Your task to perform on an android device: turn on sleep mode Image 0: 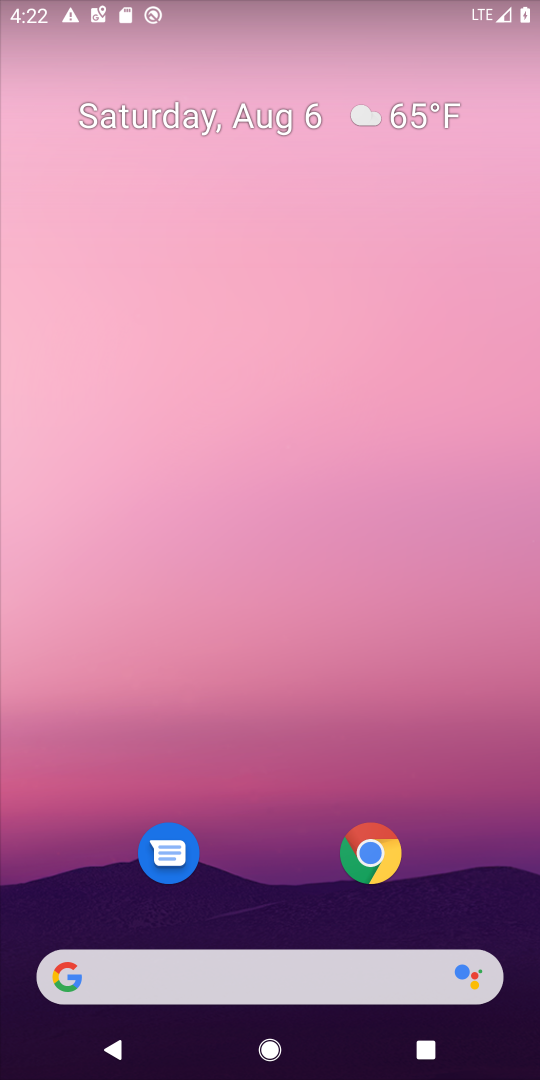
Step 0: drag from (259, 907) to (354, 103)
Your task to perform on an android device: turn on sleep mode Image 1: 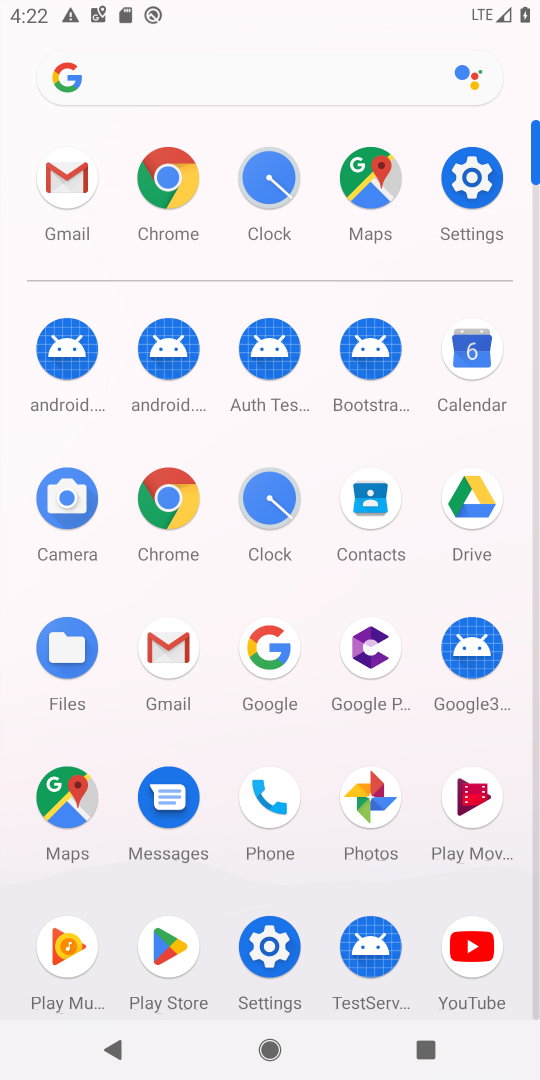
Step 1: click (474, 175)
Your task to perform on an android device: turn on sleep mode Image 2: 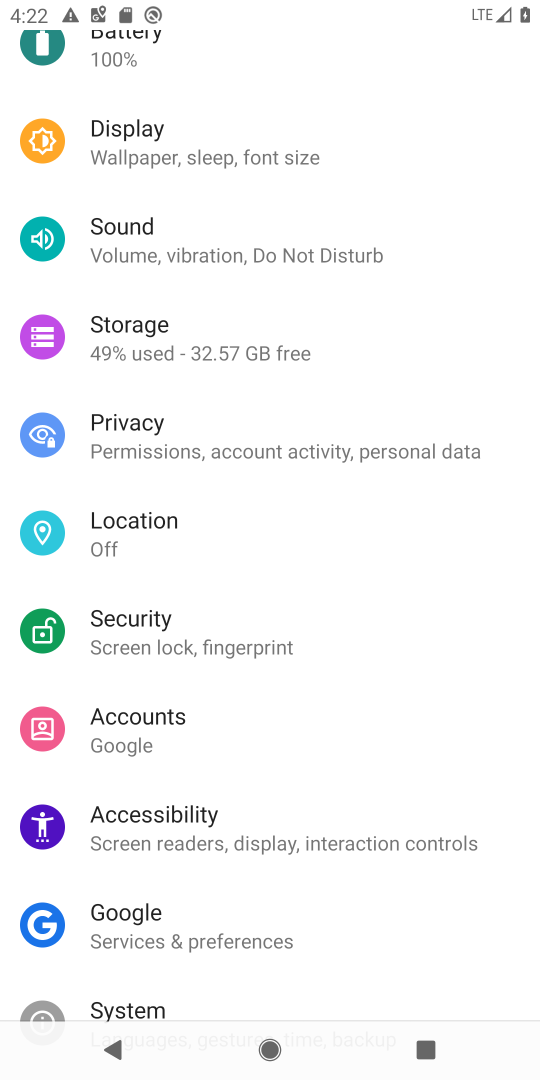
Step 2: drag from (281, 148) to (256, 979)
Your task to perform on an android device: turn on sleep mode Image 3: 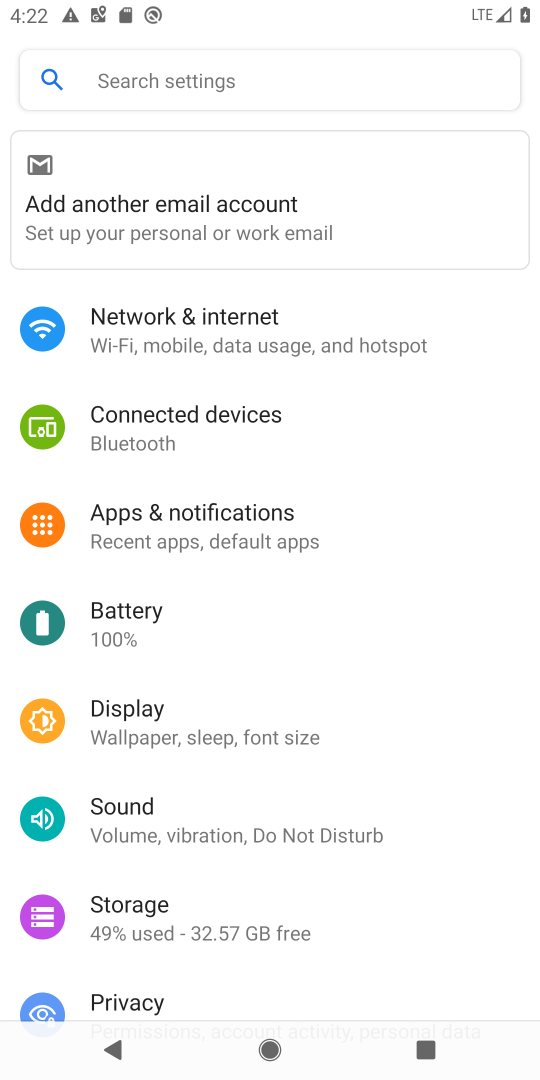
Step 3: click (194, 87)
Your task to perform on an android device: turn on sleep mode Image 4: 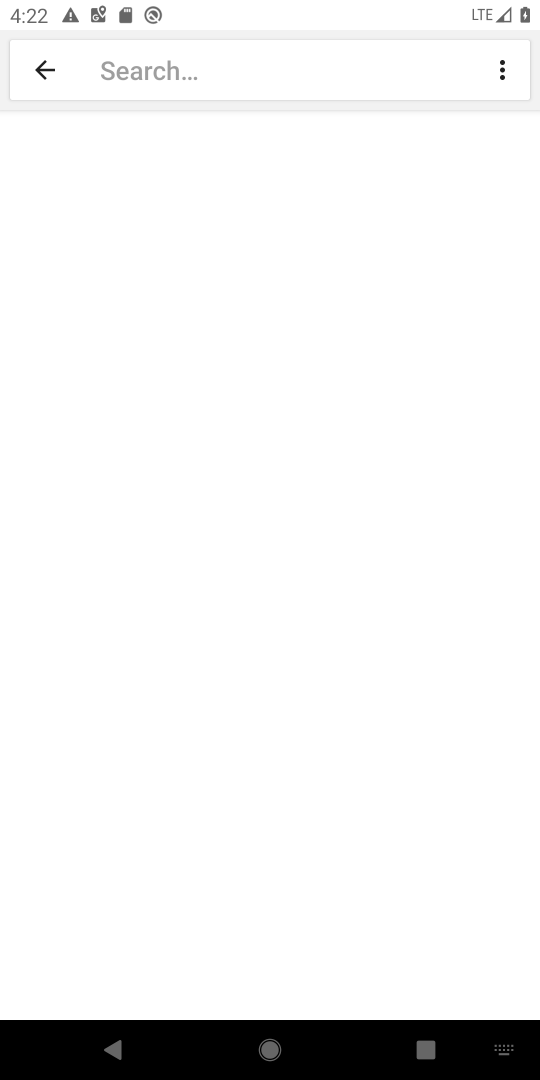
Step 4: click (216, 80)
Your task to perform on an android device: turn on sleep mode Image 5: 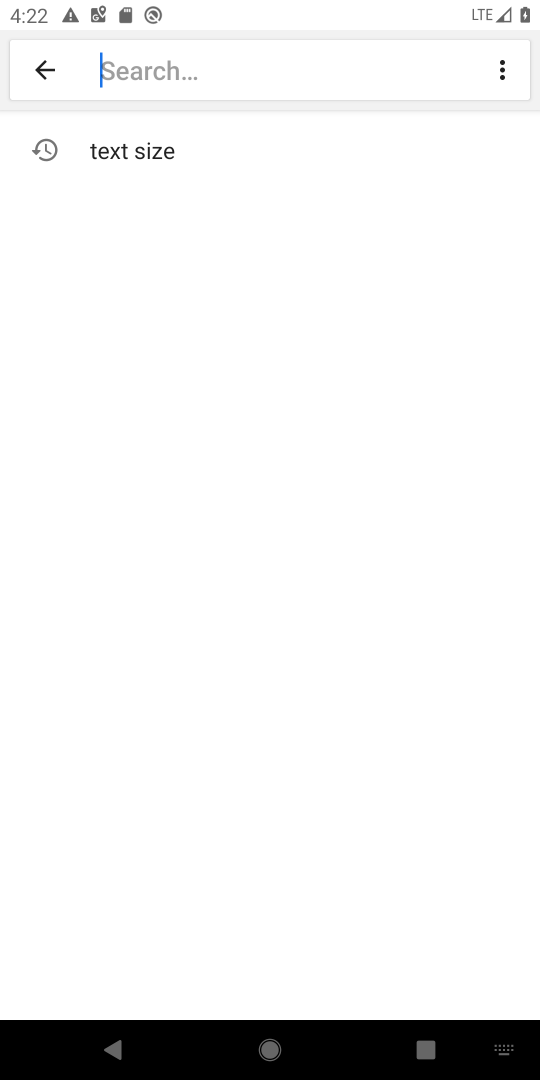
Step 5: type "sleep mode"
Your task to perform on an android device: turn on sleep mode Image 6: 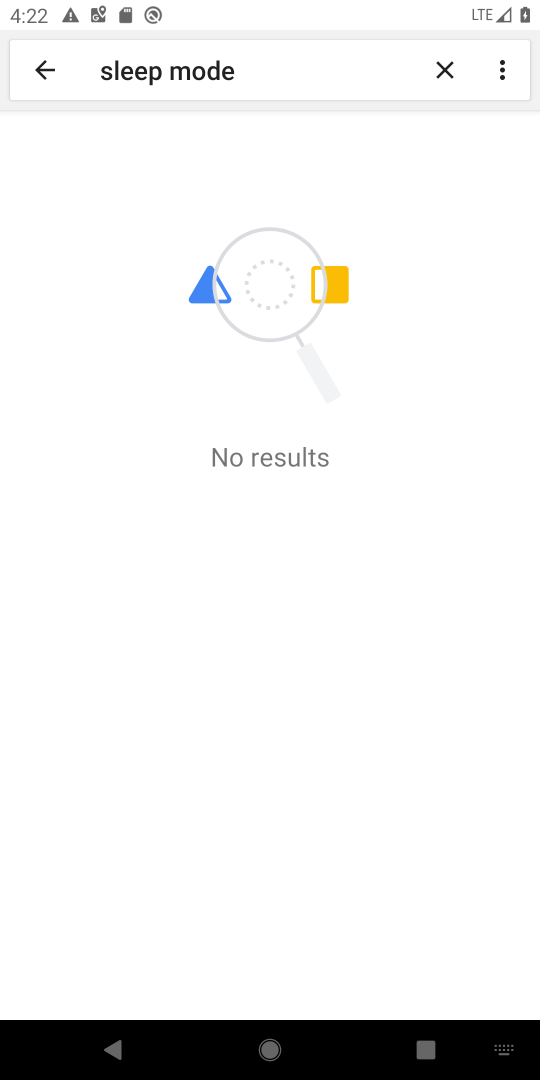
Step 6: task complete